Your task to perform on an android device: add a contact in the contacts app Image 0: 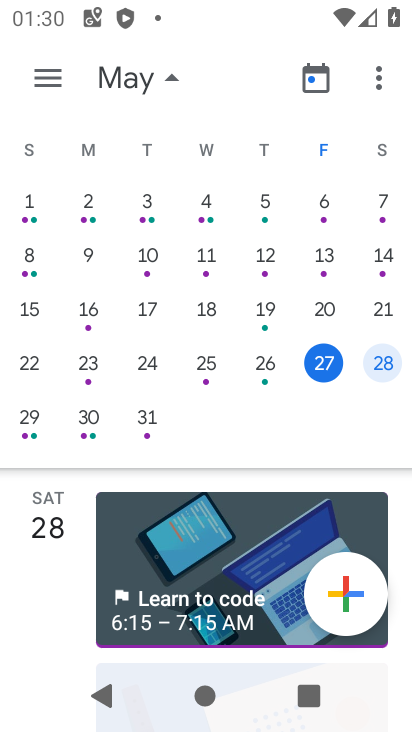
Step 0: press home button
Your task to perform on an android device: add a contact in the contacts app Image 1: 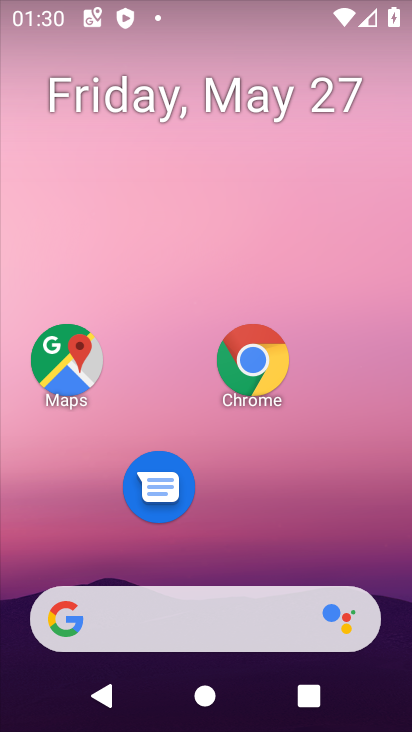
Step 1: drag from (267, 495) to (293, 86)
Your task to perform on an android device: add a contact in the contacts app Image 2: 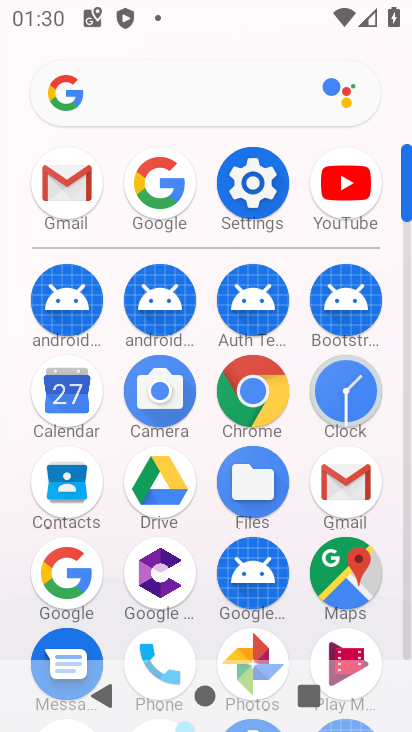
Step 2: click (58, 482)
Your task to perform on an android device: add a contact in the contacts app Image 3: 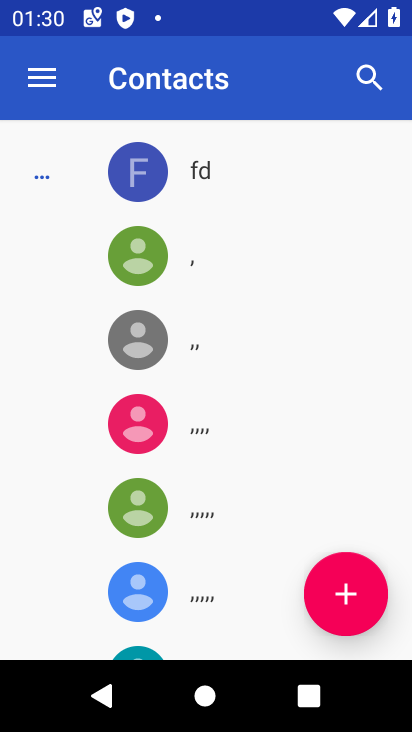
Step 3: click (351, 597)
Your task to perform on an android device: add a contact in the contacts app Image 4: 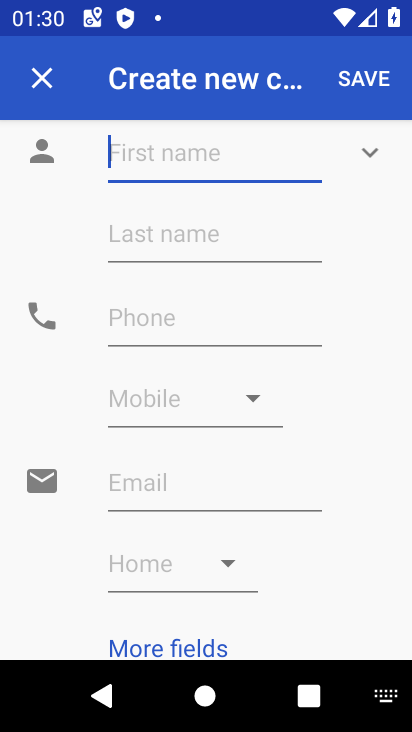
Step 4: type "gnhdmh"
Your task to perform on an android device: add a contact in the contacts app Image 5: 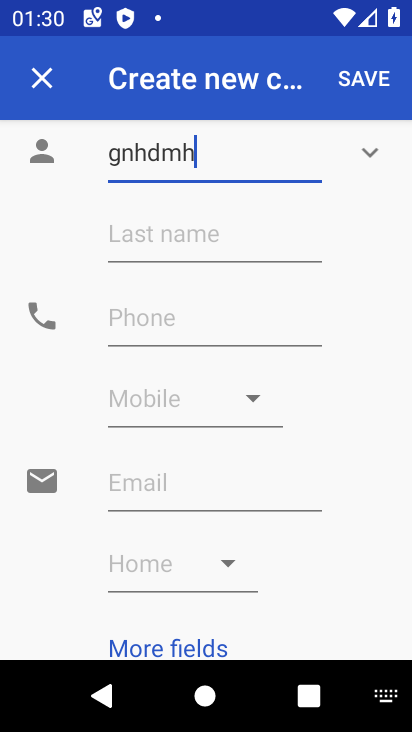
Step 5: click (373, 77)
Your task to perform on an android device: add a contact in the contacts app Image 6: 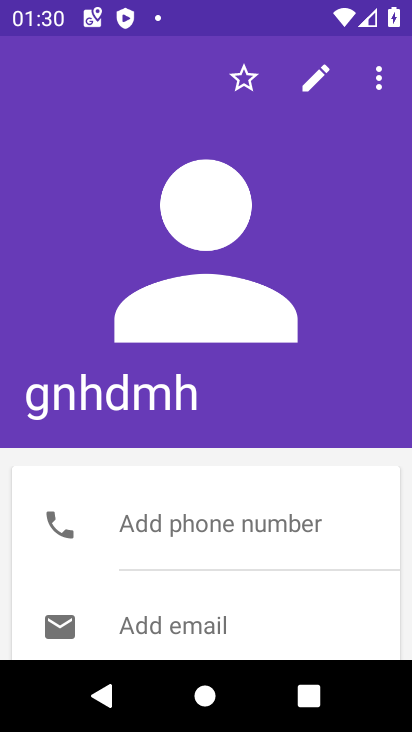
Step 6: task complete